Your task to perform on an android device: Open Google Maps Image 0: 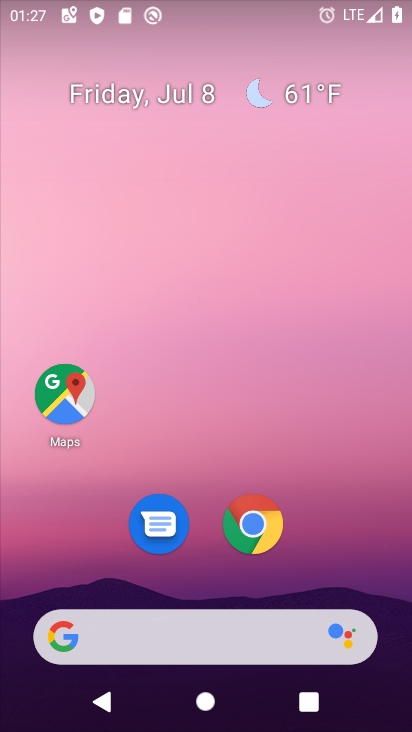
Step 0: click (65, 389)
Your task to perform on an android device: Open Google Maps Image 1: 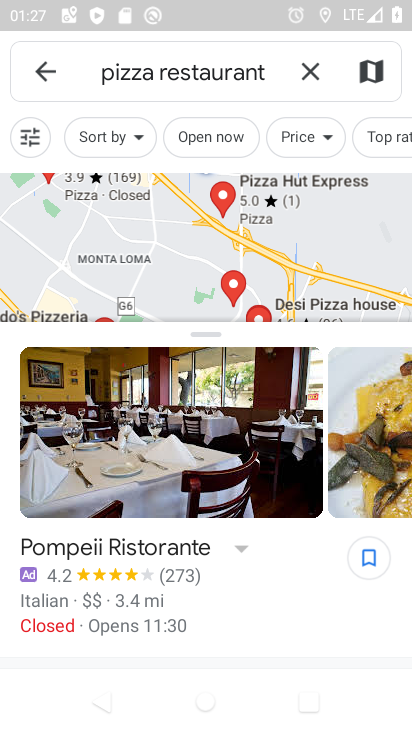
Step 1: click (308, 68)
Your task to perform on an android device: Open Google Maps Image 2: 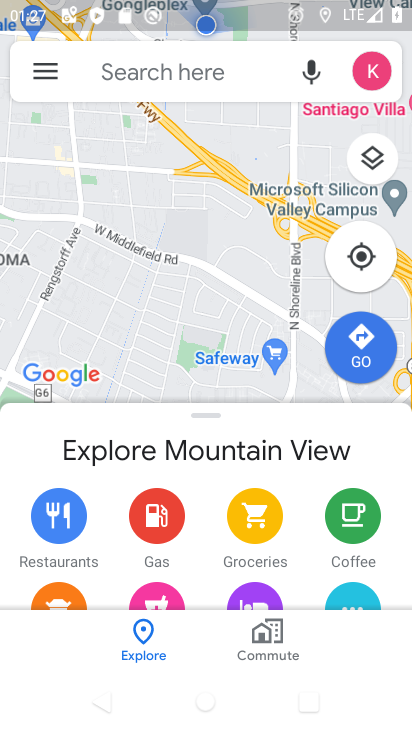
Step 2: task complete